Your task to perform on an android device: open app "Messenger Lite" Image 0: 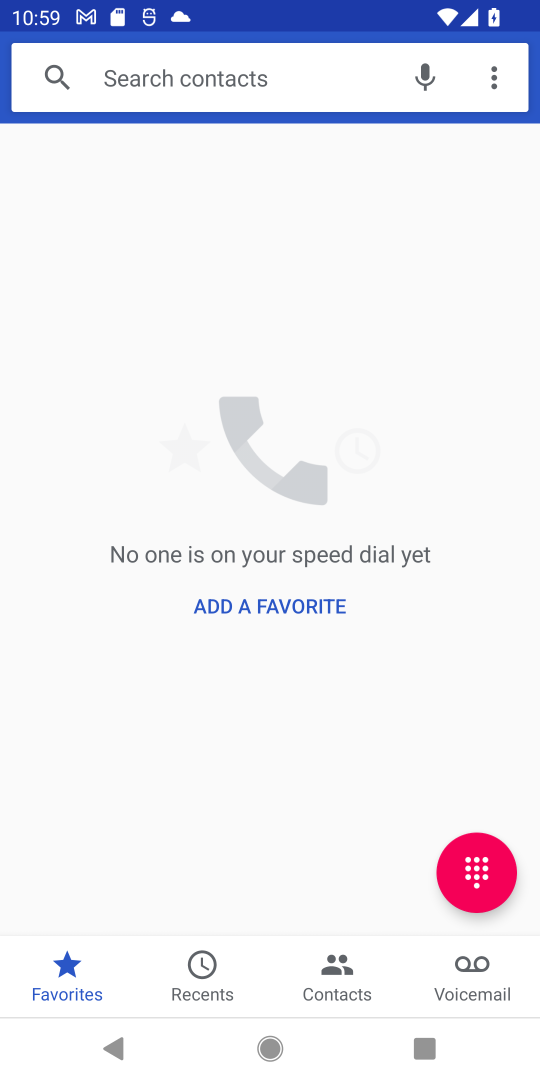
Step 0: press home button
Your task to perform on an android device: open app "Messenger Lite" Image 1: 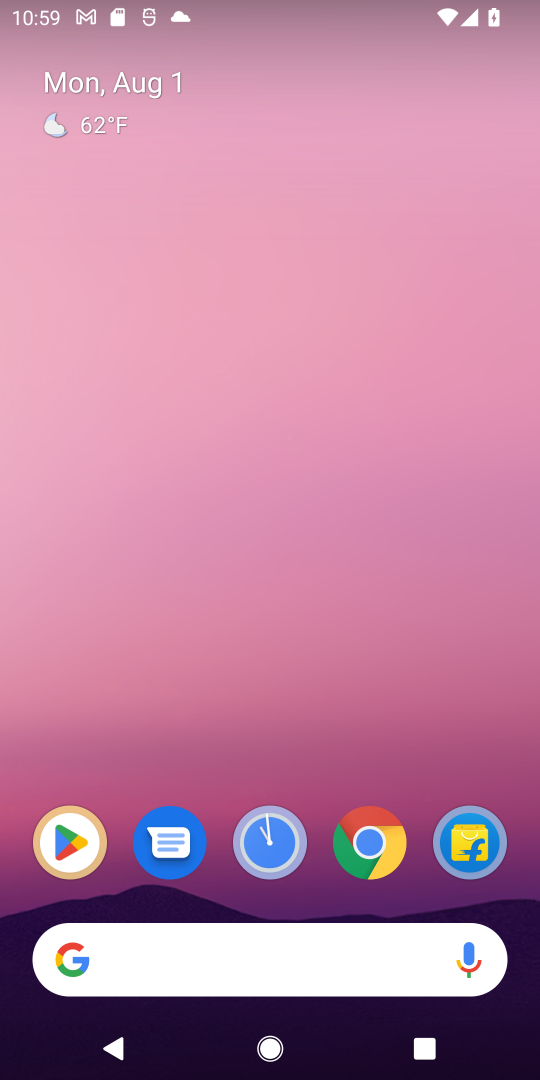
Step 1: click (86, 835)
Your task to perform on an android device: open app "Messenger Lite" Image 2: 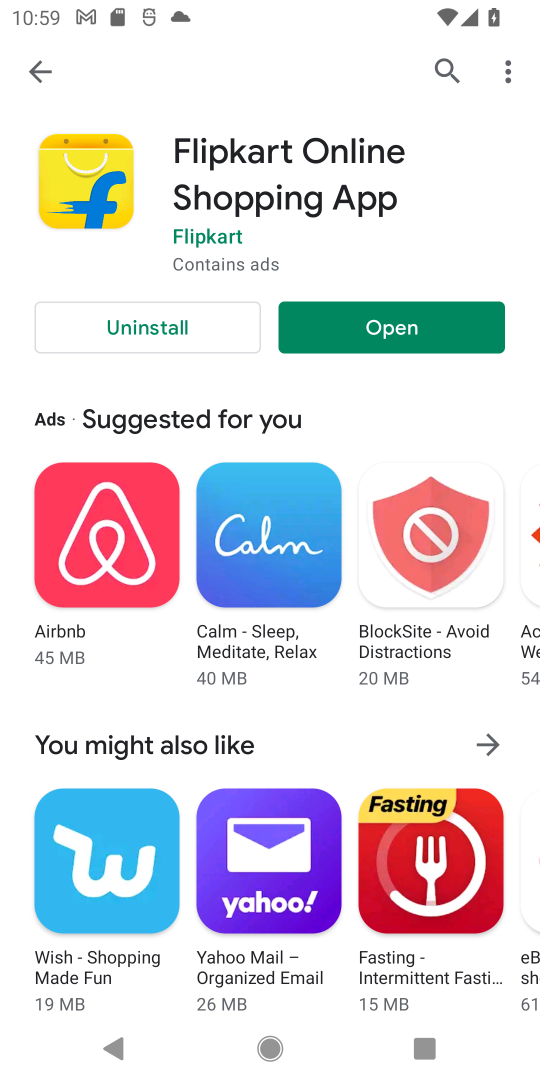
Step 2: click (447, 69)
Your task to perform on an android device: open app "Messenger Lite" Image 3: 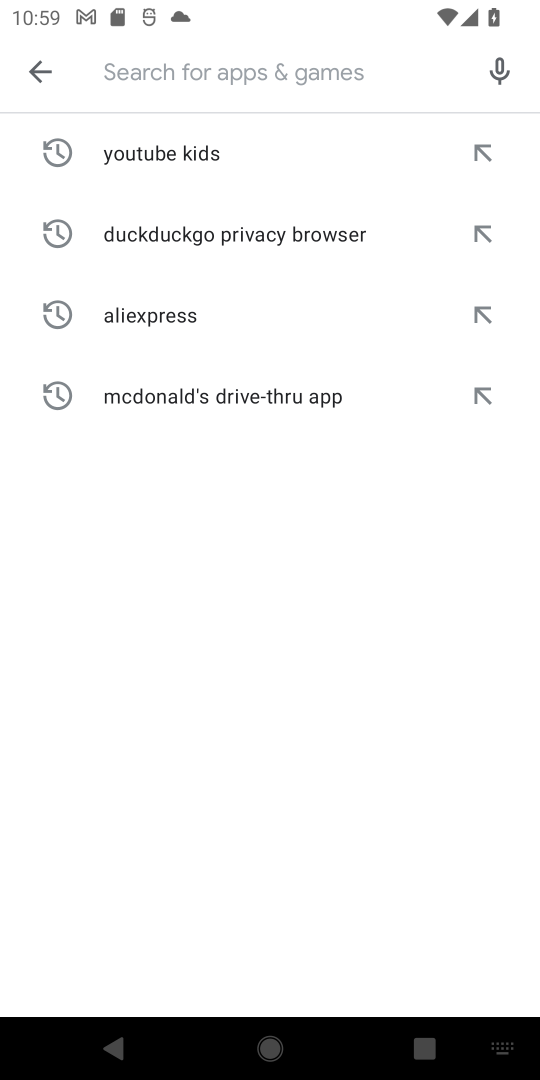
Step 3: click (199, 75)
Your task to perform on an android device: open app "Messenger Lite" Image 4: 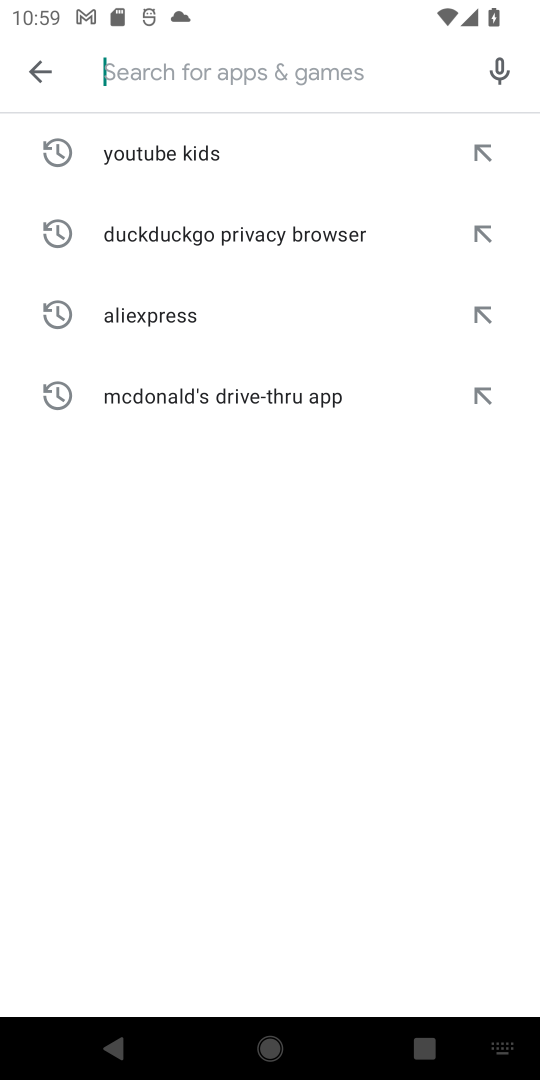
Step 4: type "Messenger Lite"
Your task to perform on an android device: open app "Messenger Lite" Image 5: 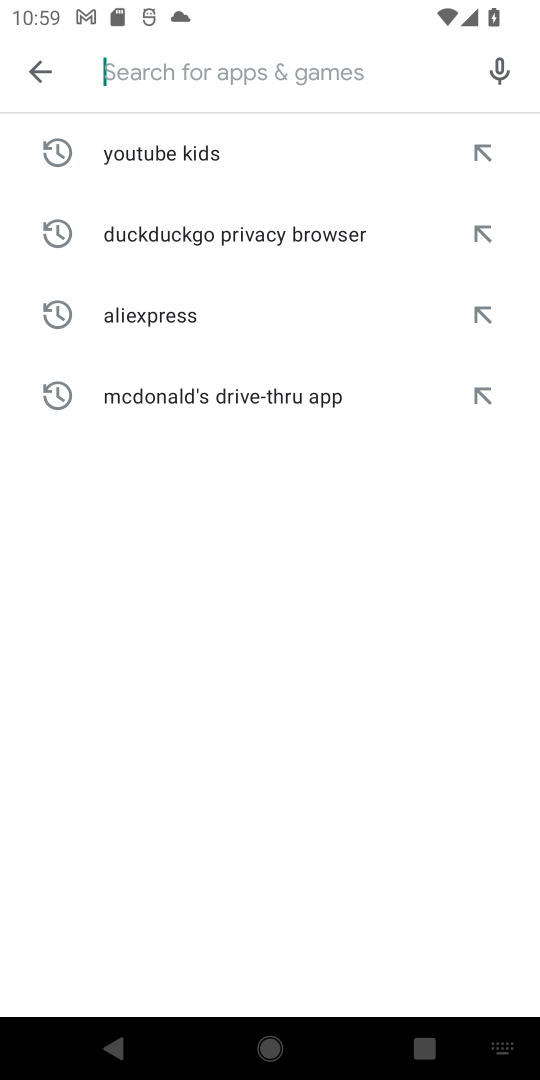
Step 5: click (311, 683)
Your task to perform on an android device: open app "Messenger Lite" Image 6: 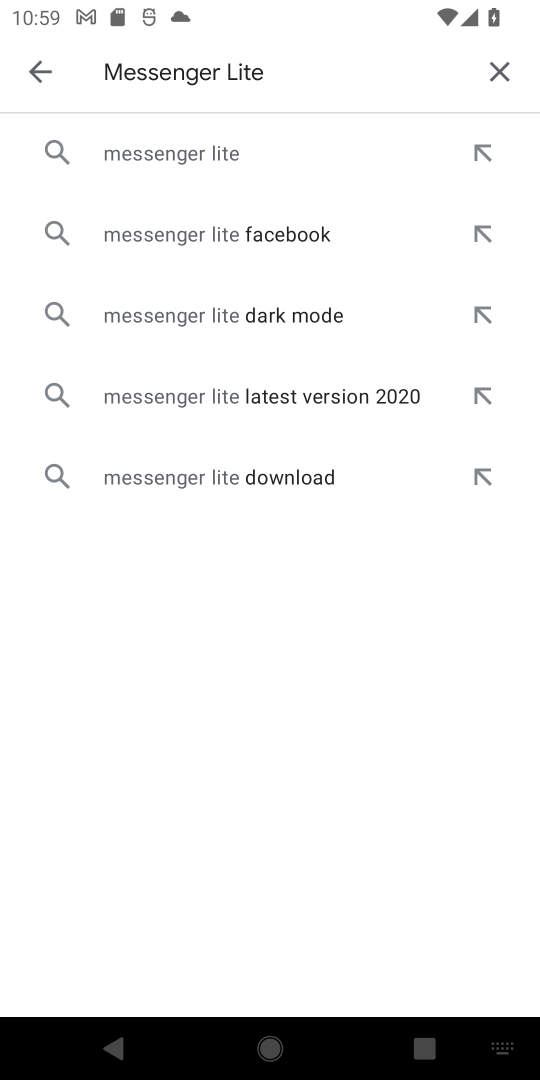
Step 6: click (219, 148)
Your task to perform on an android device: open app "Messenger Lite" Image 7: 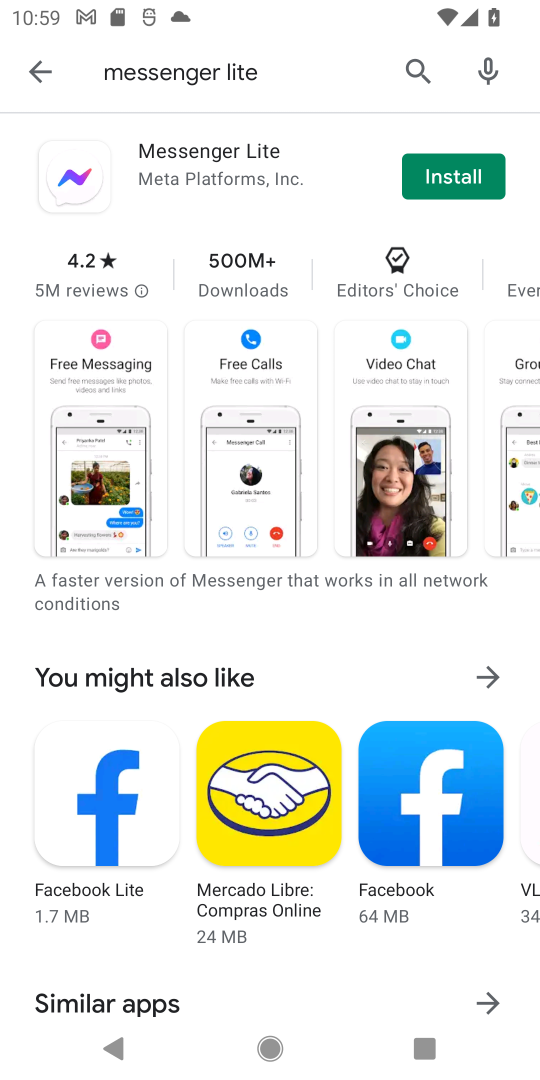
Step 7: task complete